Your task to perform on an android device: change alarm snooze length Image 0: 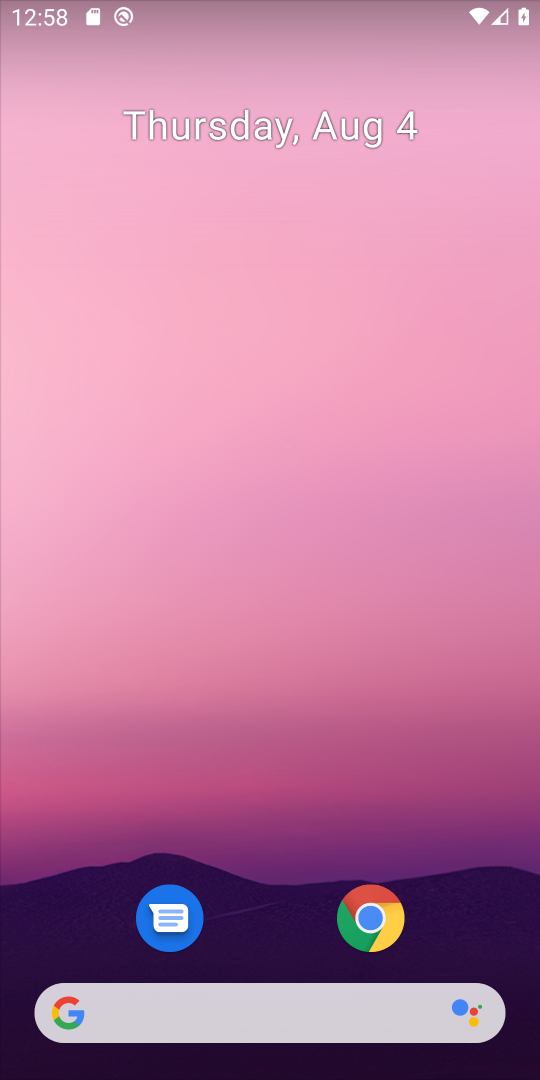
Step 0: drag from (303, 634) to (319, 268)
Your task to perform on an android device: change alarm snooze length Image 1: 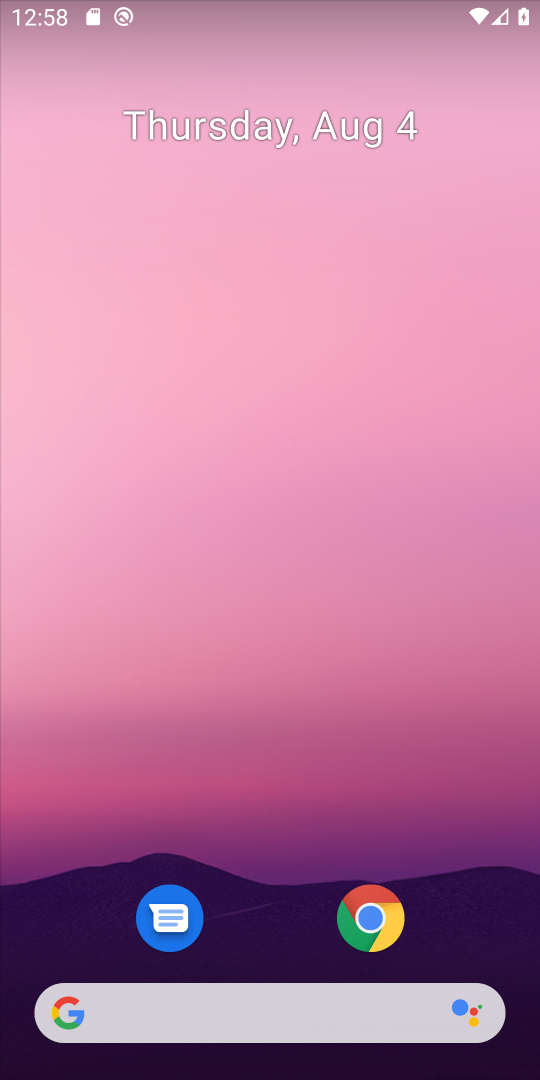
Step 1: drag from (273, 920) to (282, 194)
Your task to perform on an android device: change alarm snooze length Image 2: 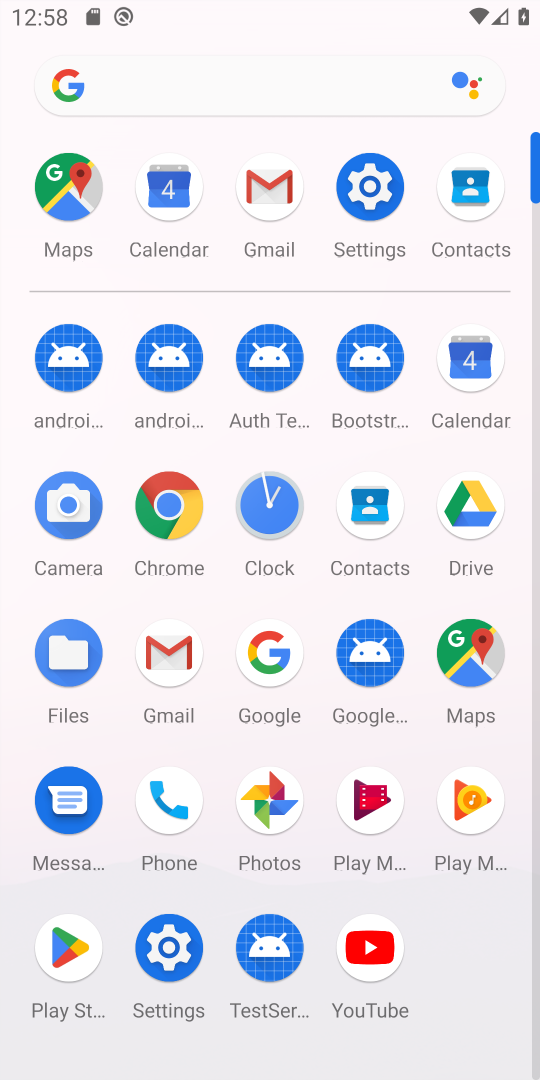
Step 2: click (274, 512)
Your task to perform on an android device: change alarm snooze length Image 3: 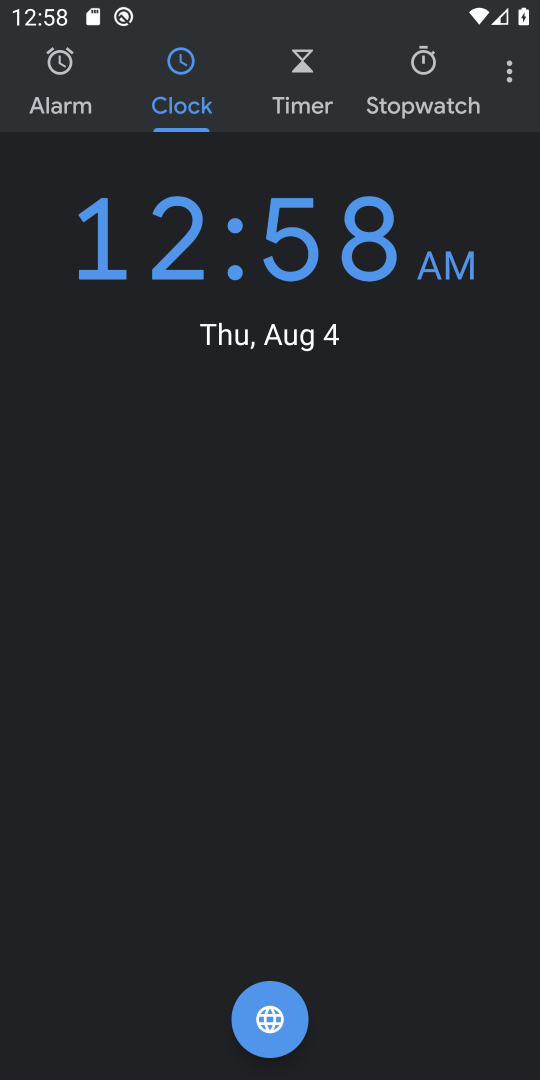
Step 3: click (515, 75)
Your task to perform on an android device: change alarm snooze length Image 4: 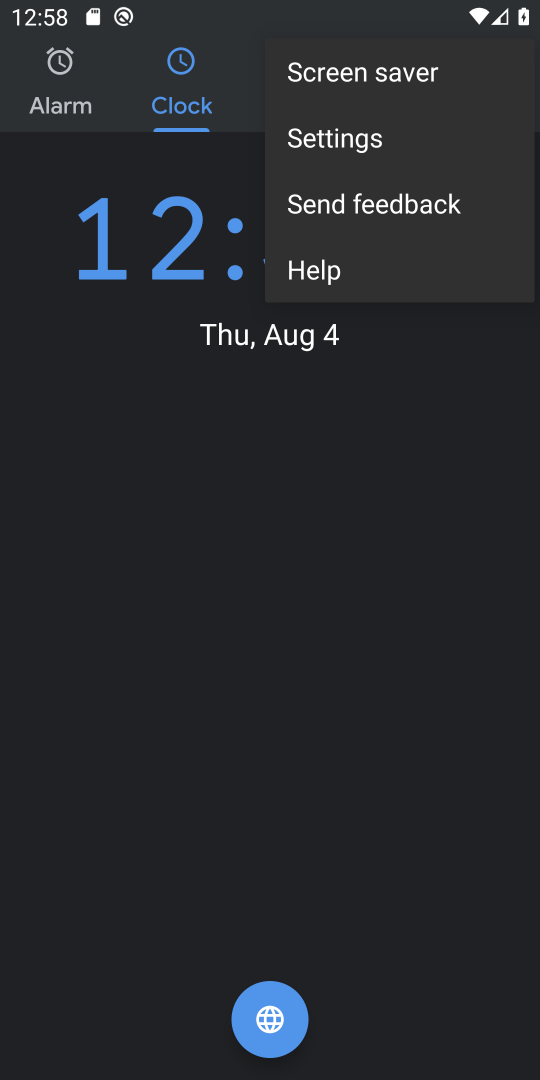
Step 4: click (418, 145)
Your task to perform on an android device: change alarm snooze length Image 5: 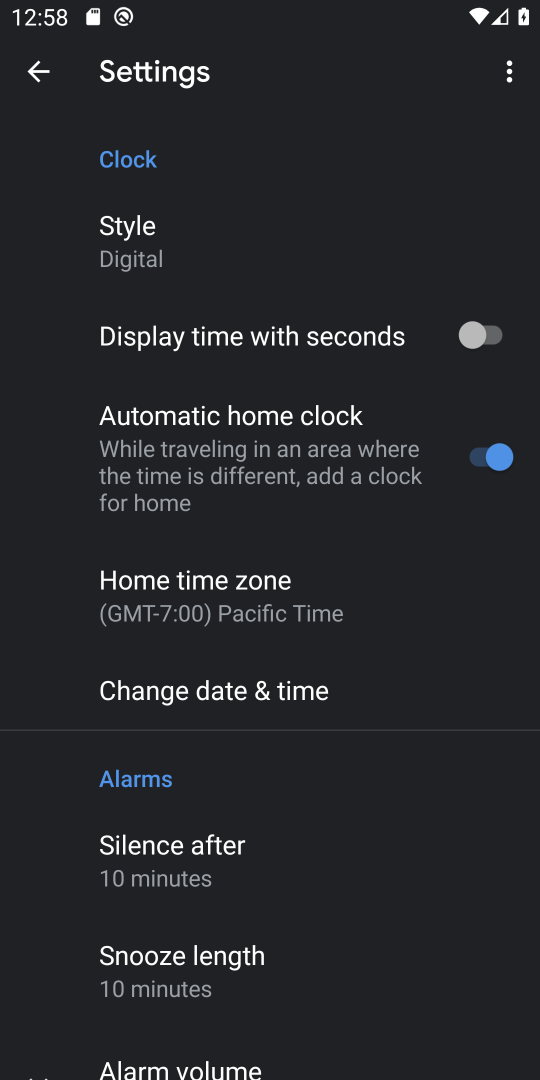
Step 5: drag from (286, 914) to (311, 655)
Your task to perform on an android device: change alarm snooze length Image 6: 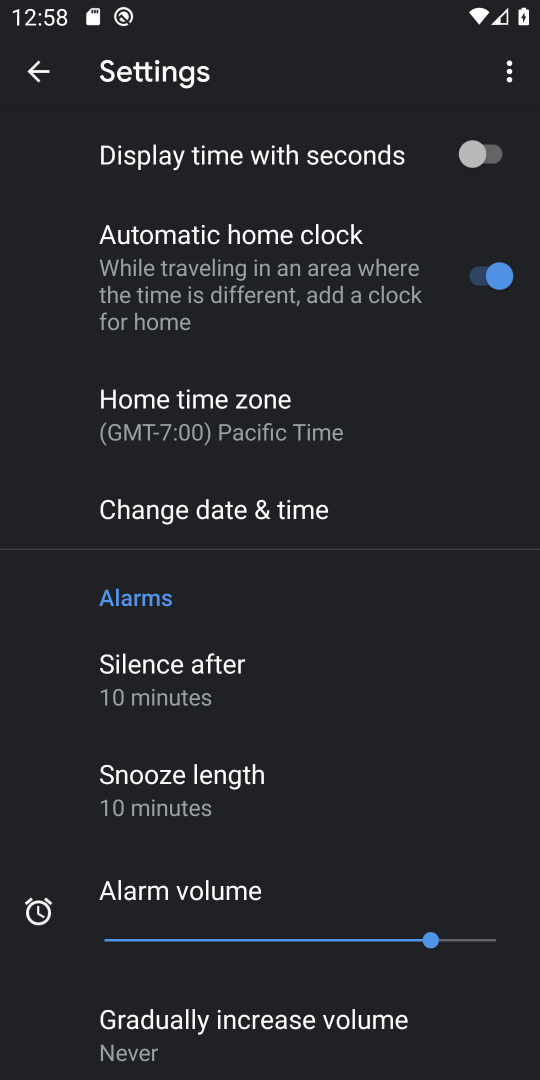
Step 6: click (258, 784)
Your task to perform on an android device: change alarm snooze length Image 7: 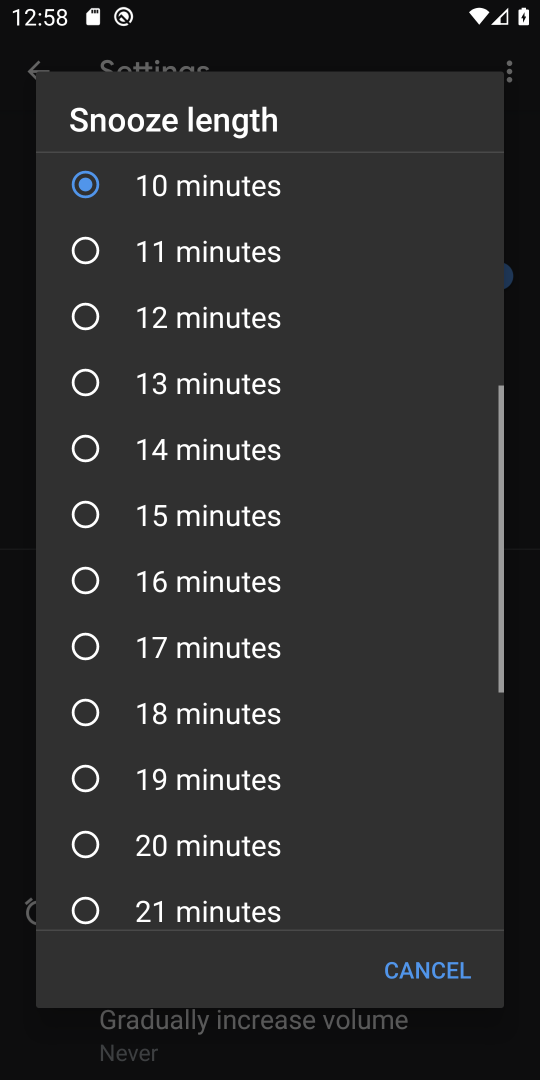
Step 7: click (263, 741)
Your task to perform on an android device: change alarm snooze length Image 8: 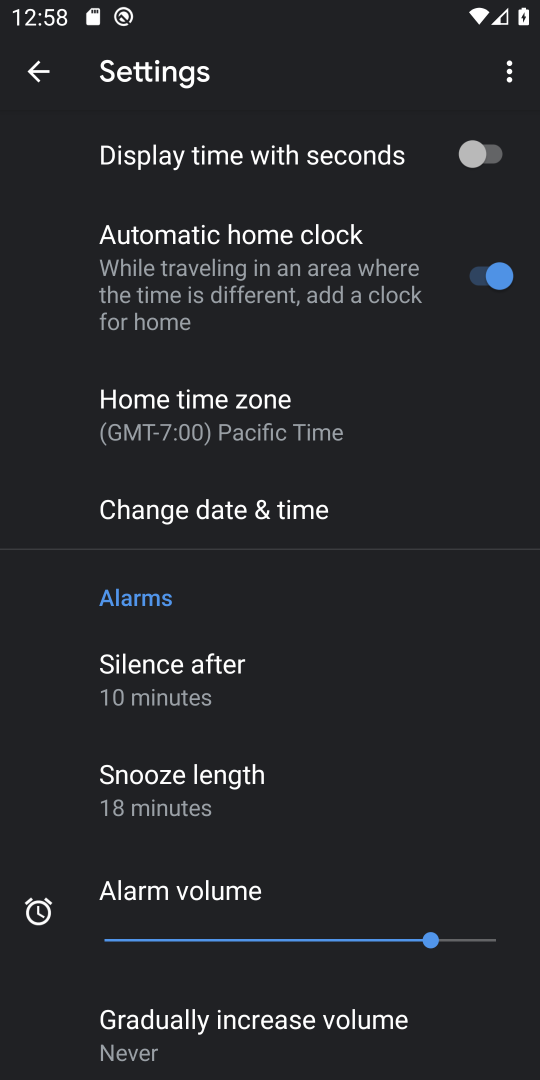
Step 8: task complete